Your task to perform on an android device: find photos in the google photos app Image 0: 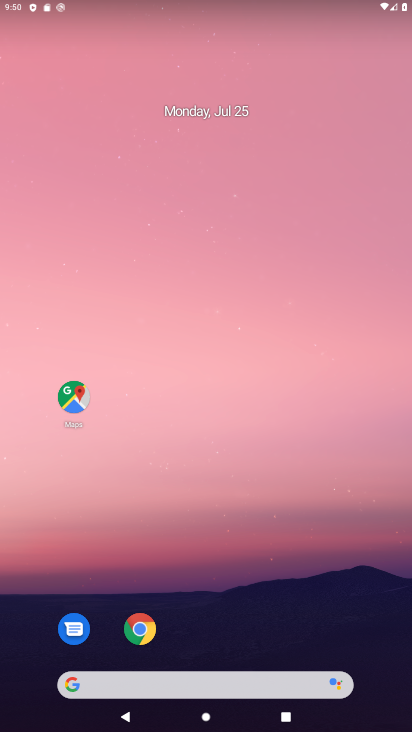
Step 0: drag from (325, 550) to (331, 10)
Your task to perform on an android device: find photos in the google photos app Image 1: 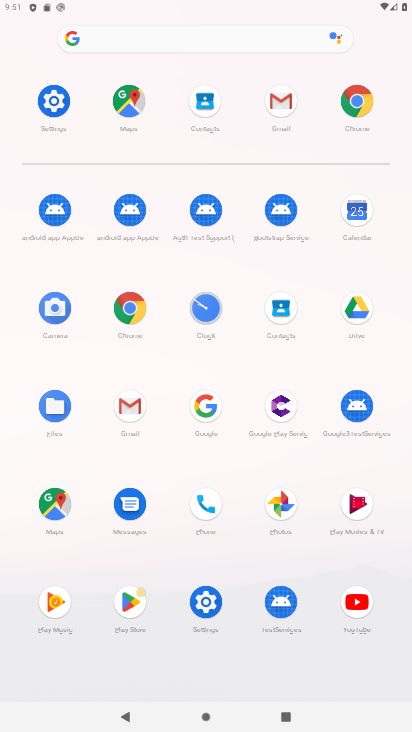
Step 1: click (280, 497)
Your task to perform on an android device: find photos in the google photos app Image 2: 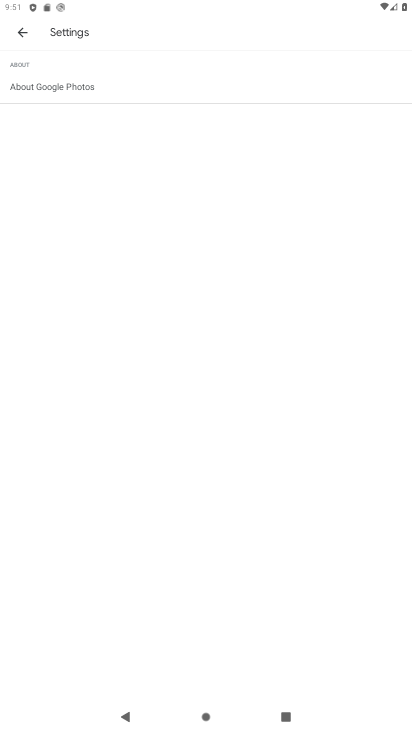
Step 2: click (23, 38)
Your task to perform on an android device: find photos in the google photos app Image 3: 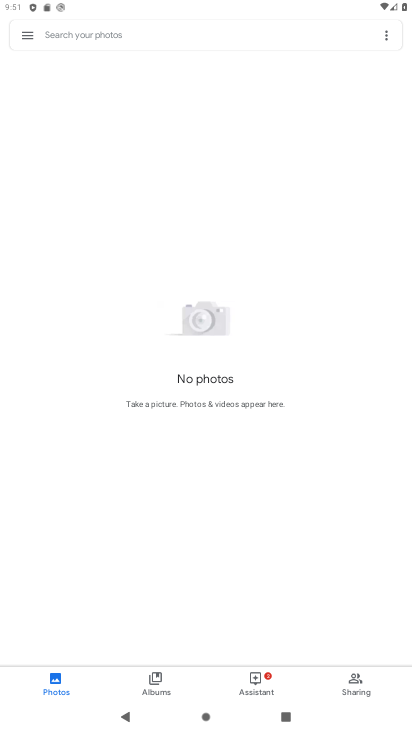
Step 3: task complete